Your task to perform on an android device: turn pop-ups off in chrome Image 0: 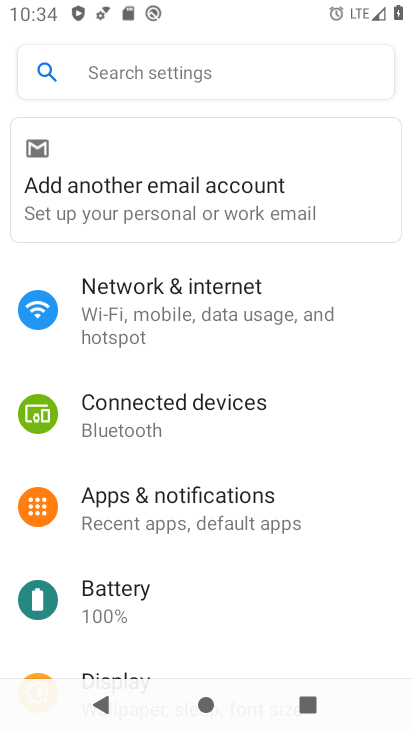
Step 0: press home button
Your task to perform on an android device: turn pop-ups off in chrome Image 1: 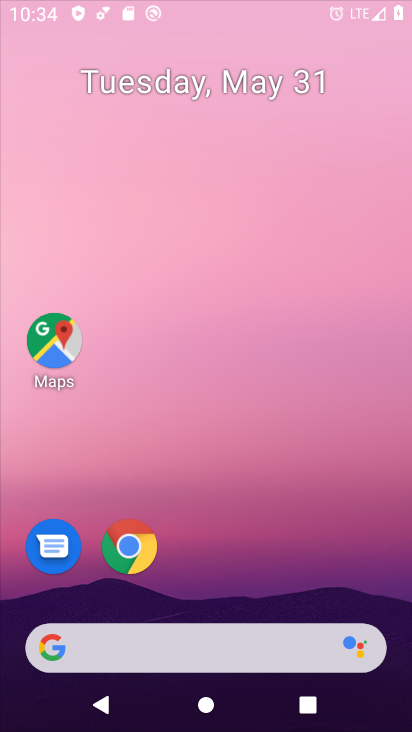
Step 1: drag from (230, 644) to (230, 155)
Your task to perform on an android device: turn pop-ups off in chrome Image 2: 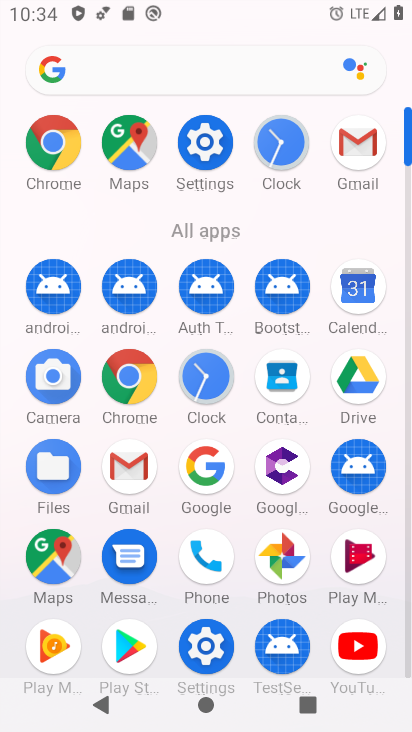
Step 2: click (97, 371)
Your task to perform on an android device: turn pop-ups off in chrome Image 3: 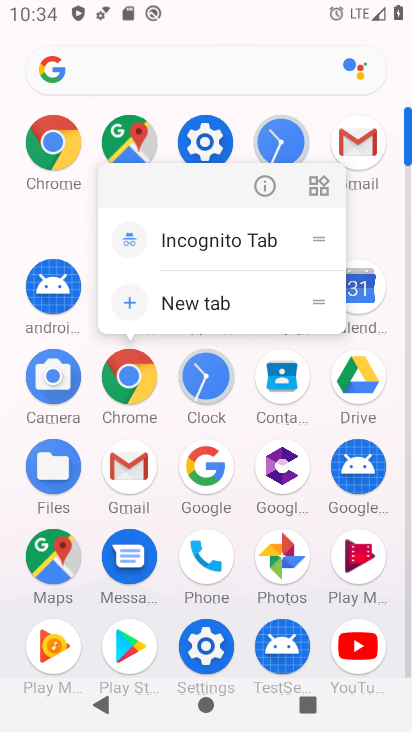
Step 3: click (135, 381)
Your task to perform on an android device: turn pop-ups off in chrome Image 4: 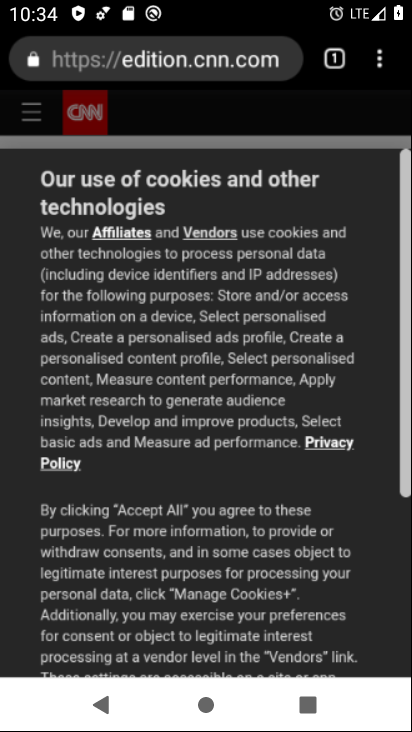
Step 4: drag from (379, 55) to (260, 571)
Your task to perform on an android device: turn pop-ups off in chrome Image 5: 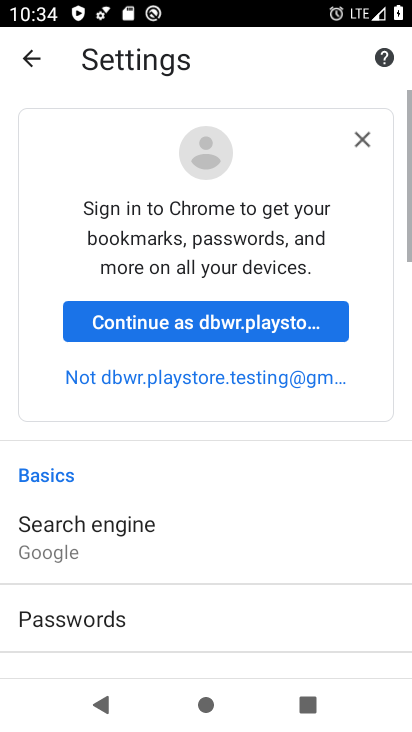
Step 5: drag from (249, 634) to (279, 139)
Your task to perform on an android device: turn pop-ups off in chrome Image 6: 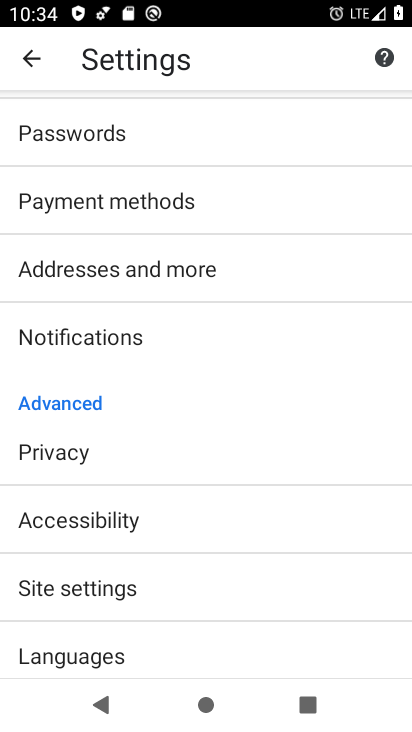
Step 6: click (233, 596)
Your task to perform on an android device: turn pop-ups off in chrome Image 7: 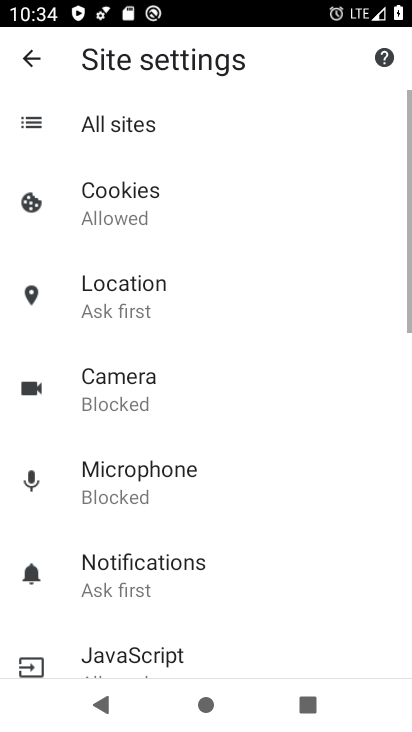
Step 7: drag from (238, 509) to (309, 72)
Your task to perform on an android device: turn pop-ups off in chrome Image 8: 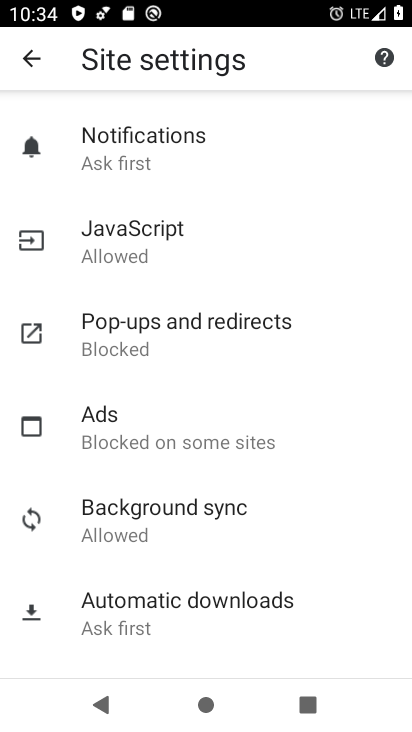
Step 8: click (283, 335)
Your task to perform on an android device: turn pop-ups off in chrome Image 9: 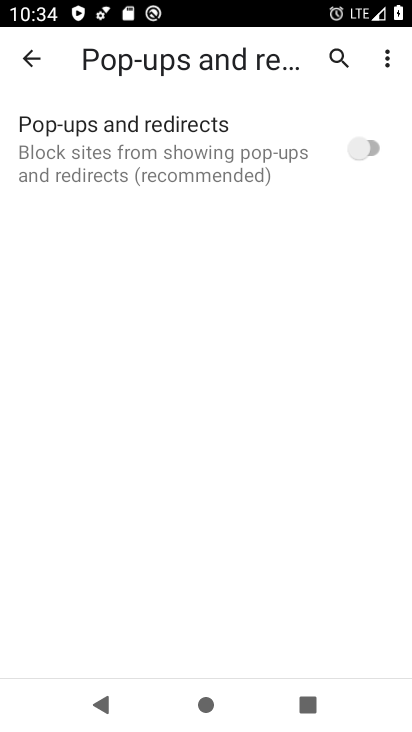
Step 9: task complete